Your task to perform on an android device: turn off translation in the chrome app Image 0: 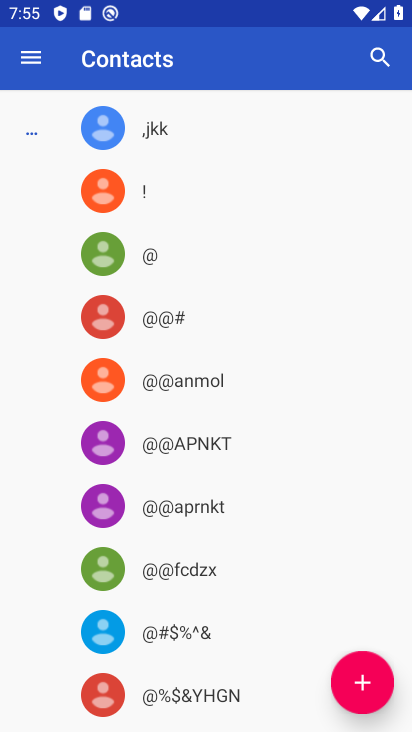
Step 0: press home button
Your task to perform on an android device: turn off translation in the chrome app Image 1: 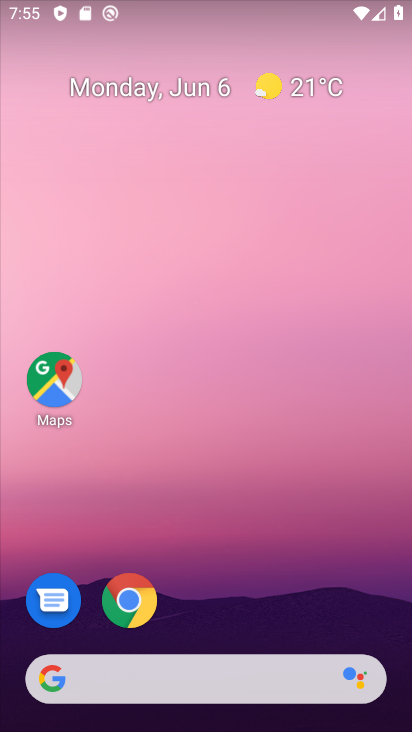
Step 1: click (128, 594)
Your task to perform on an android device: turn off translation in the chrome app Image 2: 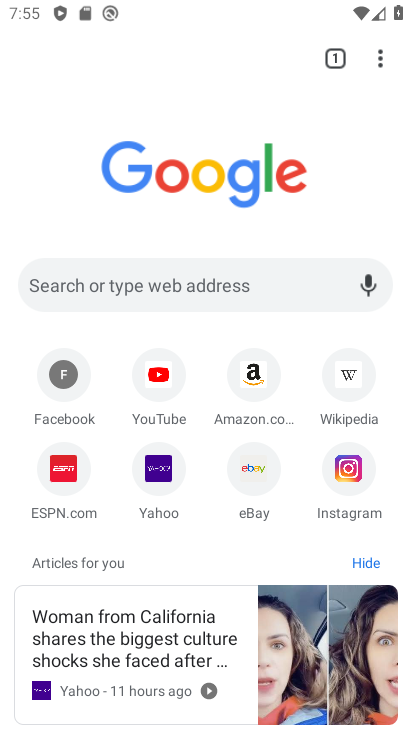
Step 2: click (381, 61)
Your task to perform on an android device: turn off translation in the chrome app Image 3: 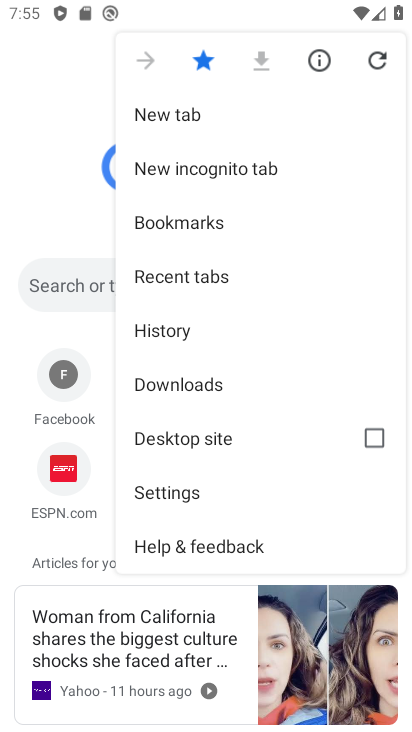
Step 3: click (164, 487)
Your task to perform on an android device: turn off translation in the chrome app Image 4: 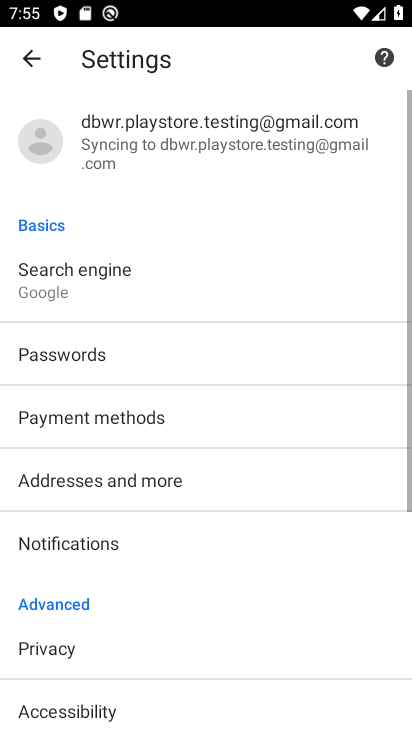
Step 4: drag from (124, 598) to (212, 193)
Your task to perform on an android device: turn off translation in the chrome app Image 5: 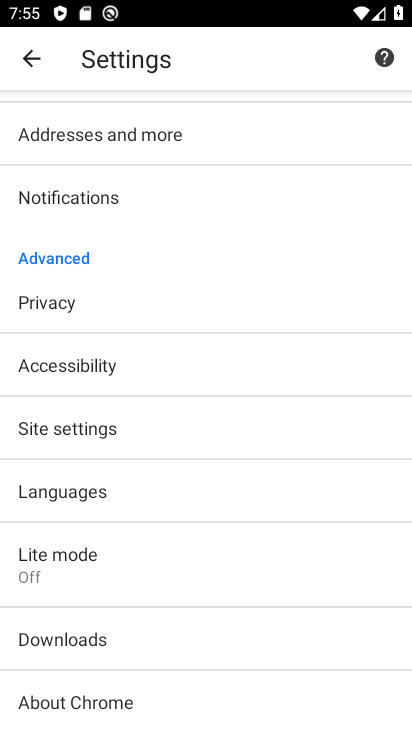
Step 5: click (93, 495)
Your task to perform on an android device: turn off translation in the chrome app Image 6: 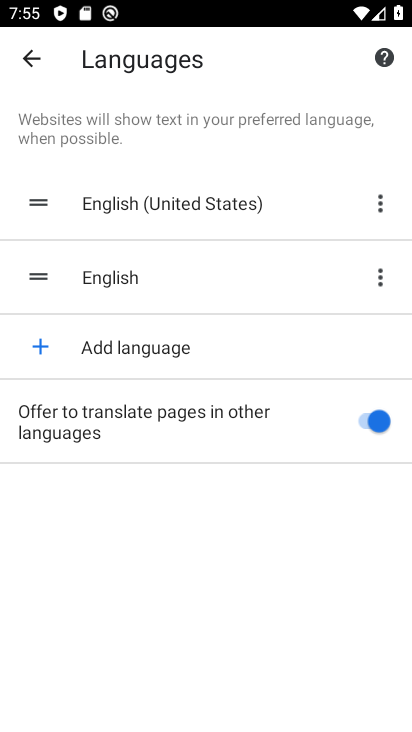
Step 6: click (346, 419)
Your task to perform on an android device: turn off translation in the chrome app Image 7: 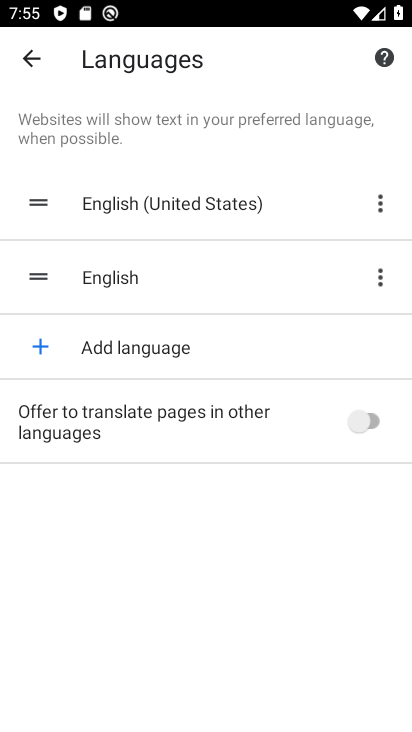
Step 7: task complete